Your task to perform on an android device: See recent photos Image 0: 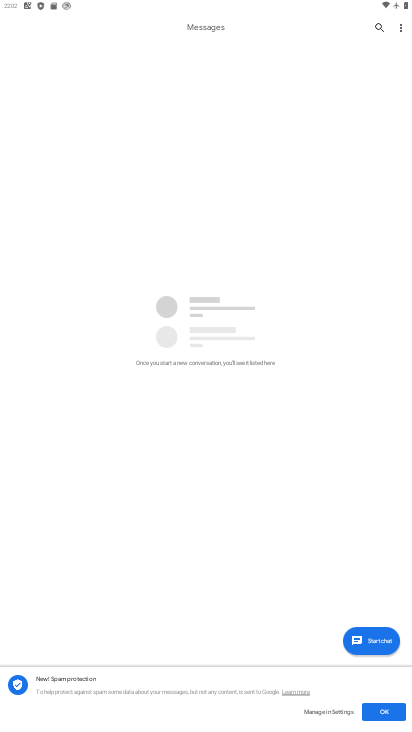
Step 0: press home button
Your task to perform on an android device: See recent photos Image 1: 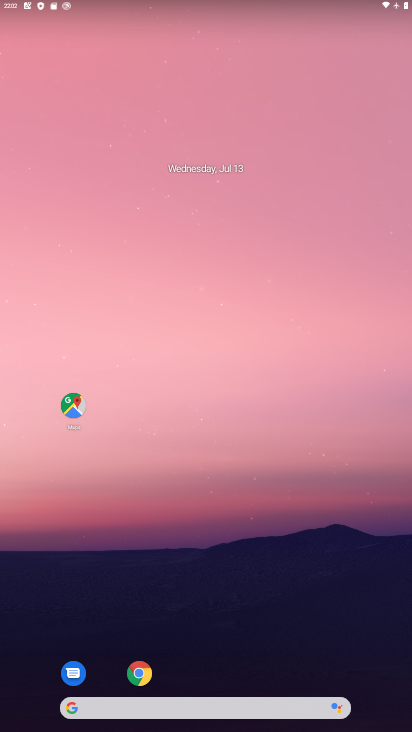
Step 1: drag from (199, 662) to (241, 155)
Your task to perform on an android device: See recent photos Image 2: 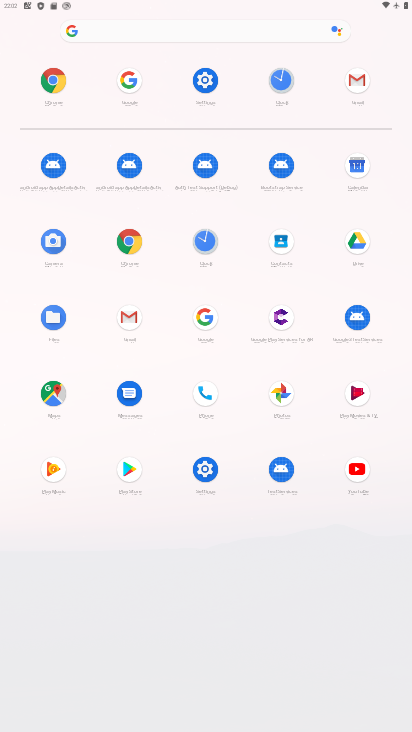
Step 2: click (269, 399)
Your task to perform on an android device: See recent photos Image 3: 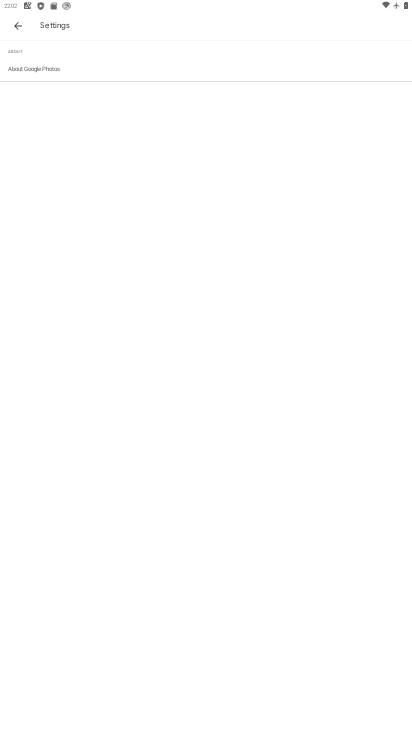
Step 3: click (9, 26)
Your task to perform on an android device: See recent photos Image 4: 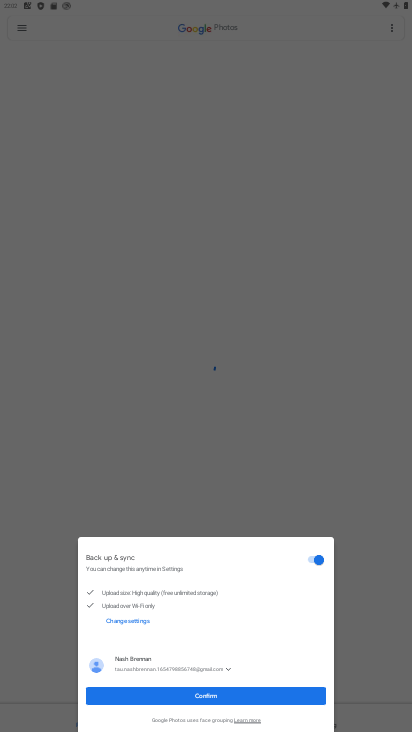
Step 4: click (196, 699)
Your task to perform on an android device: See recent photos Image 5: 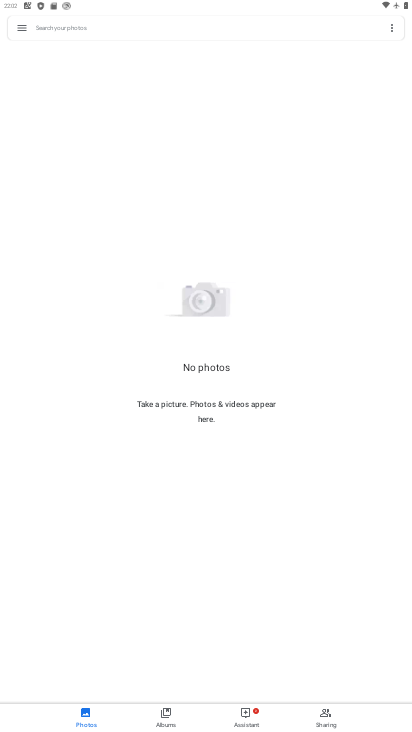
Step 5: task complete